Your task to perform on an android device: remove spam from my inbox in the gmail app Image 0: 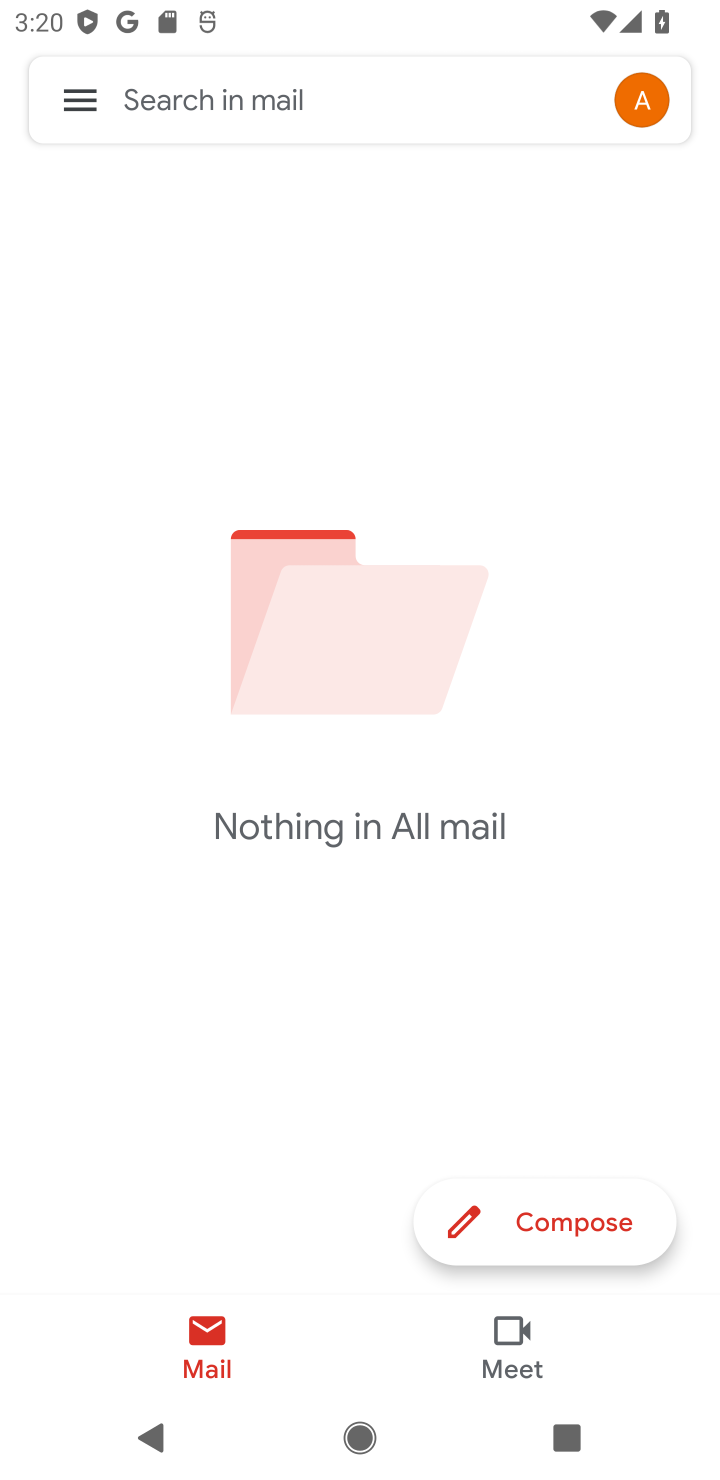
Step 0: click (98, 111)
Your task to perform on an android device: remove spam from my inbox in the gmail app Image 1: 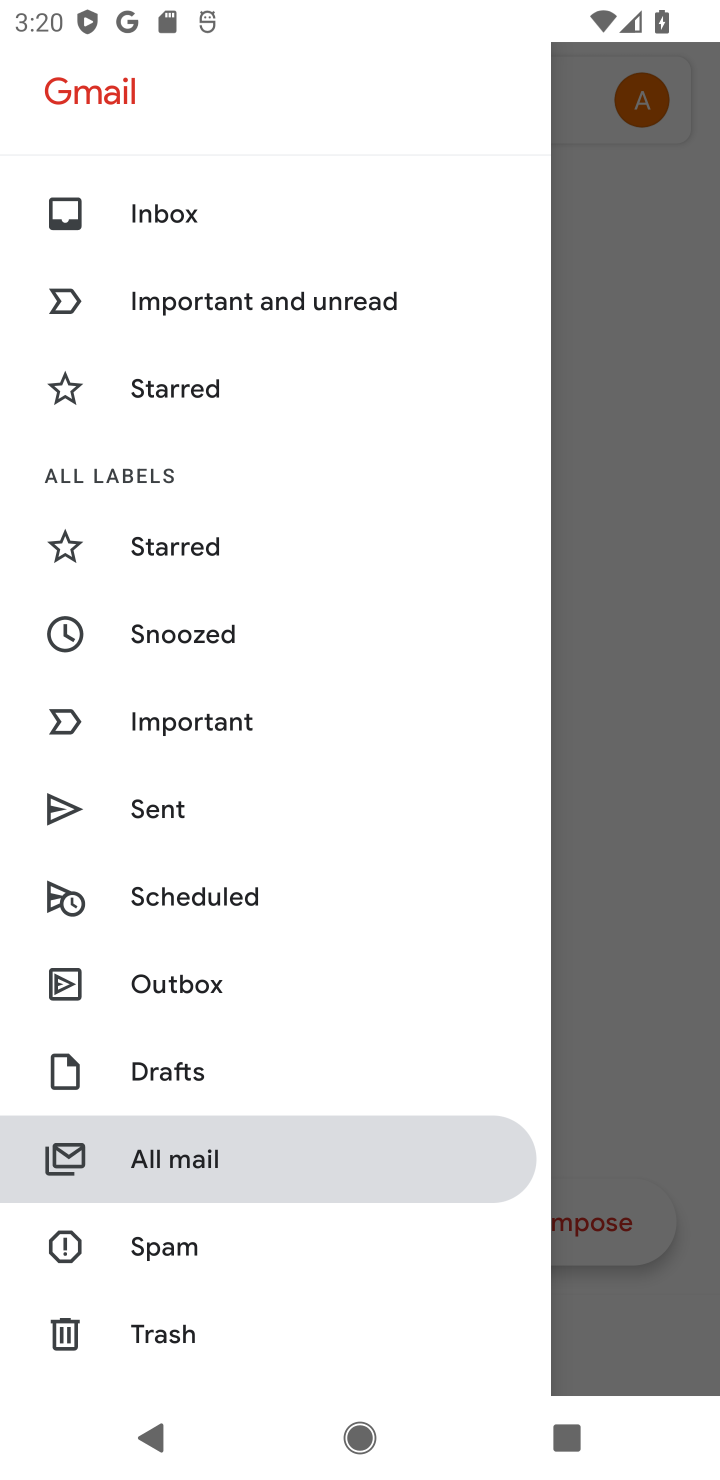
Step 1: click (263, 1234)
Your task to perform on an android device: remove spam from my inbox in the gmail app Image 2: 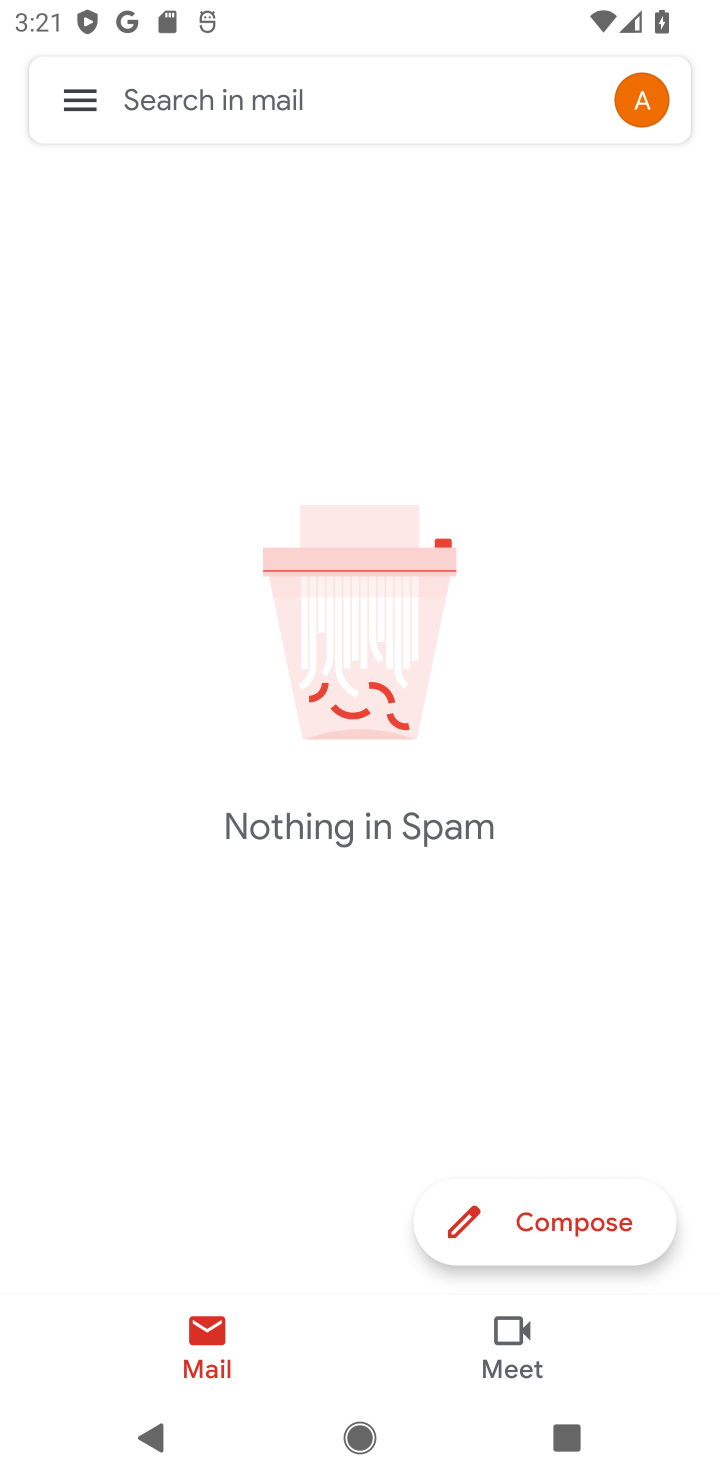
Step 2: task complete